Your task to perform on an android device: toggle location history Image 0: 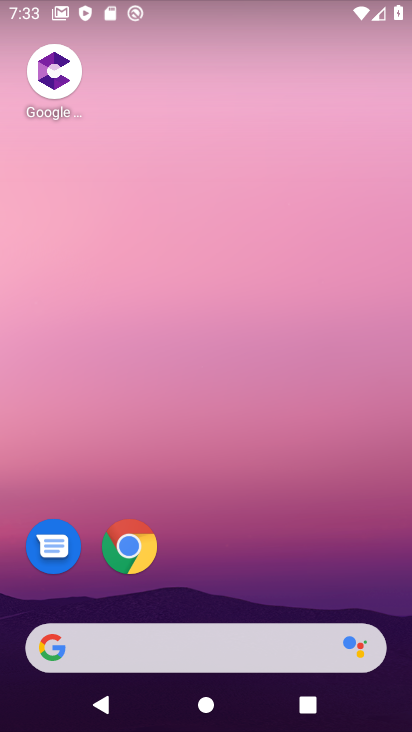
Step 0: drag from (177, 575) to (240, 170)
Your task to perform on an android device: toggle location history Image 1: 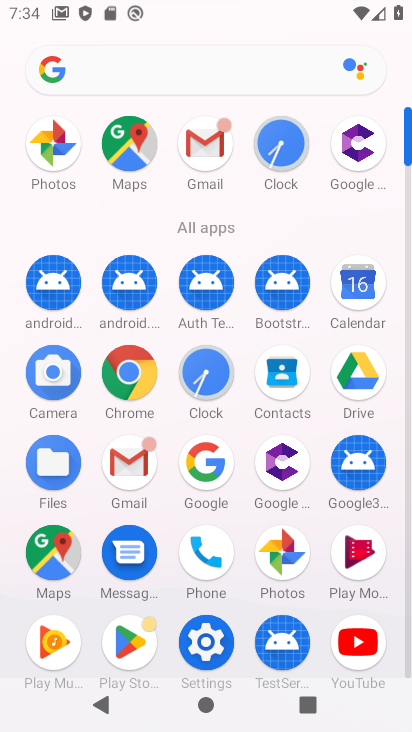
Step 1: click (126, 367)
Your task to perform on an android device: toggle location history Image 2: 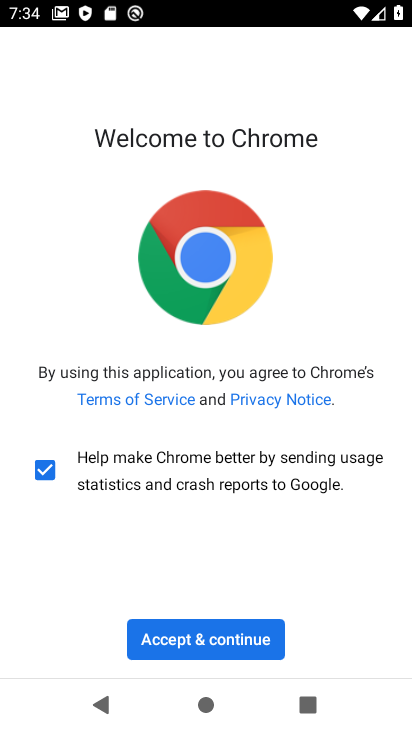
Step 2: press back button
Your task to perform on an android device: toggle location history Image 3: 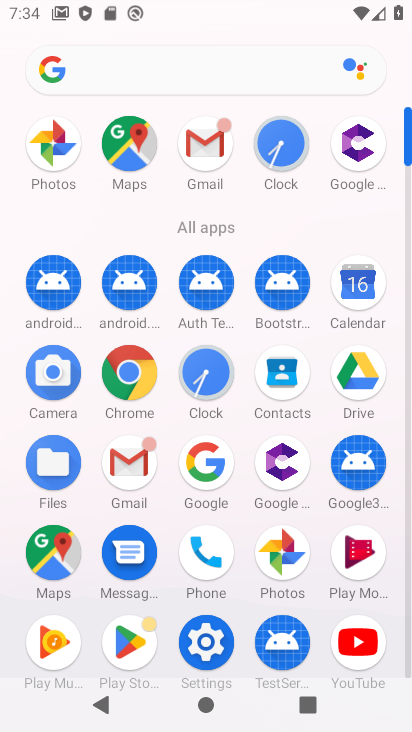
Step 3: press back button
Your task to perform on an android device: toggle location history Image 4: 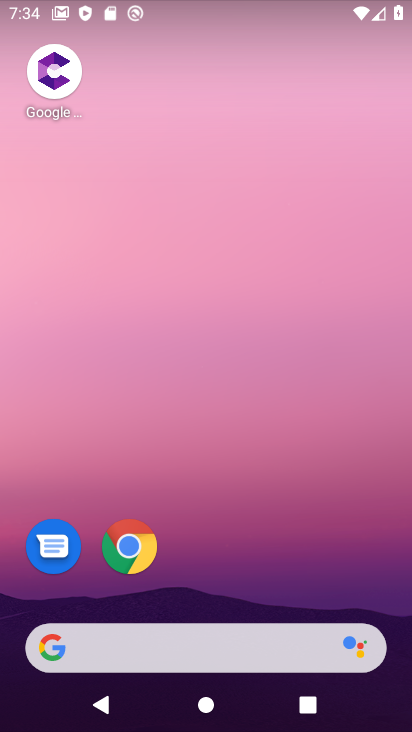
Step 4: drag from (187, 540) to (187, 208)
Your task to perform on an android device: toggle location history Image 5: 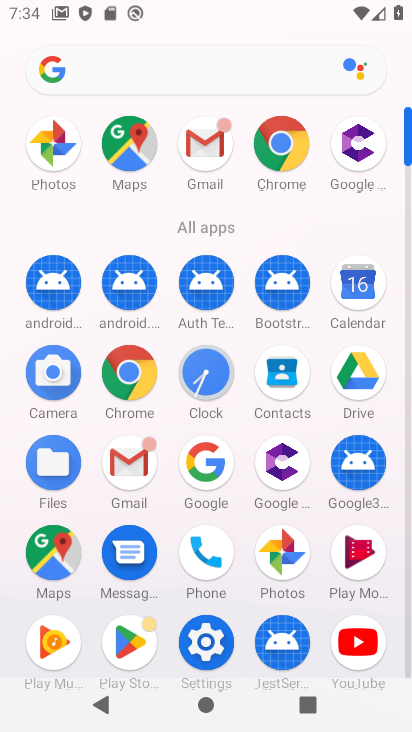
Step 5: click (202, 643)
Your task to perform on an android device: toggle location history Image 6: 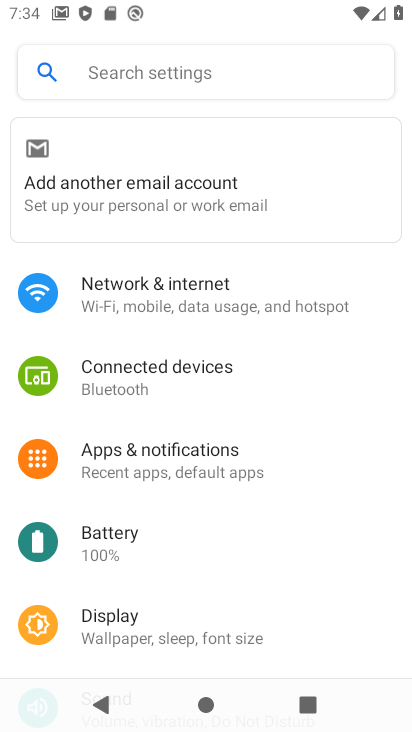
Step 6: drag from (214, 573) to (230, 205)
Your task to perform on an android device: toggle location history Image 7: 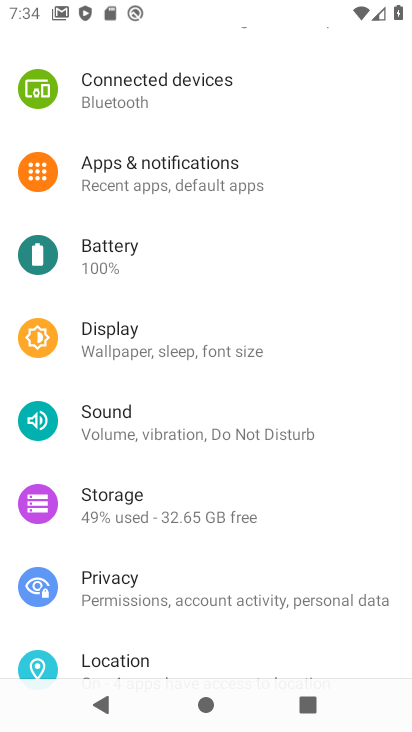
Step 7: drag from (164, 596) to (178, 155)
Your task to perform on an android device: toggle location history Image 8: 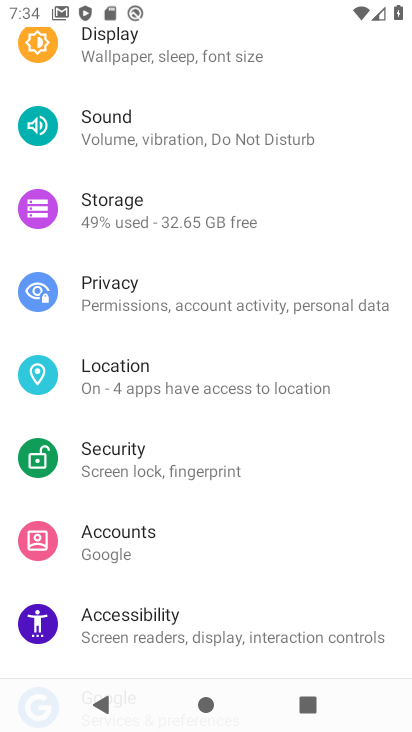
Step 8: click (129, 359)
Your task to perform on an android device: toggle location history Image 9: 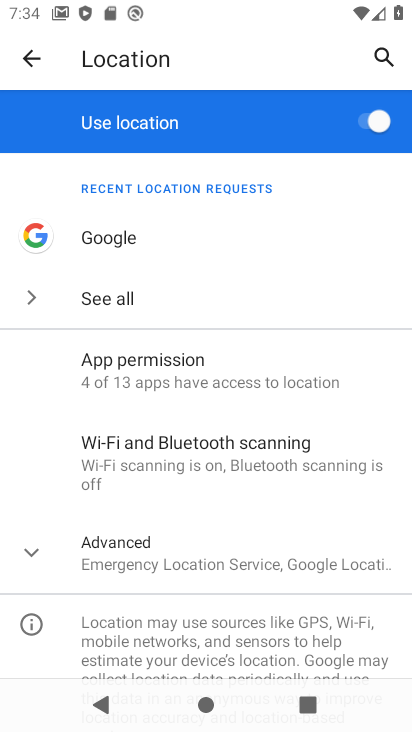
Step 9: drag from (154, 590) to (190, 274)
Your task to perform on an android device: toggle location history Image 10: 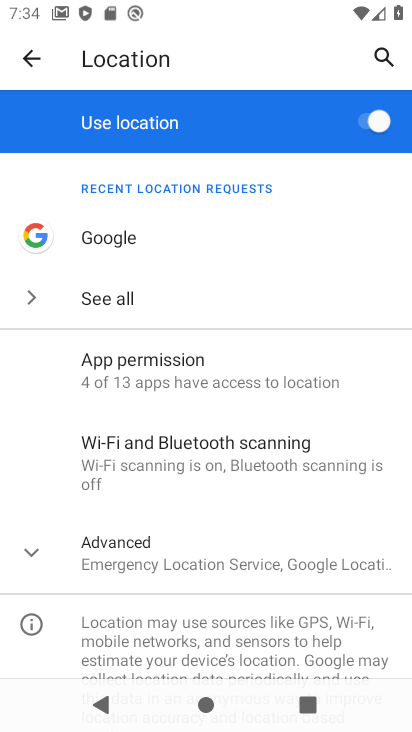
Step 10: click (190, 274)
Your task to perform on an android device: toggle location history Image 11: 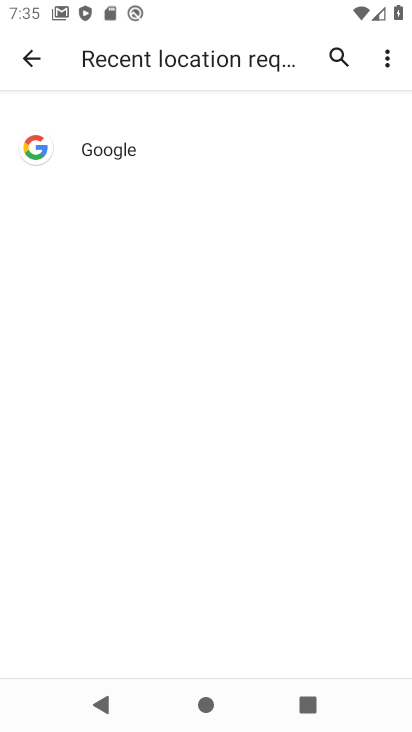
Step 11: click (33, 58)
Your task to perform on an android device: toggle location history Image 12: 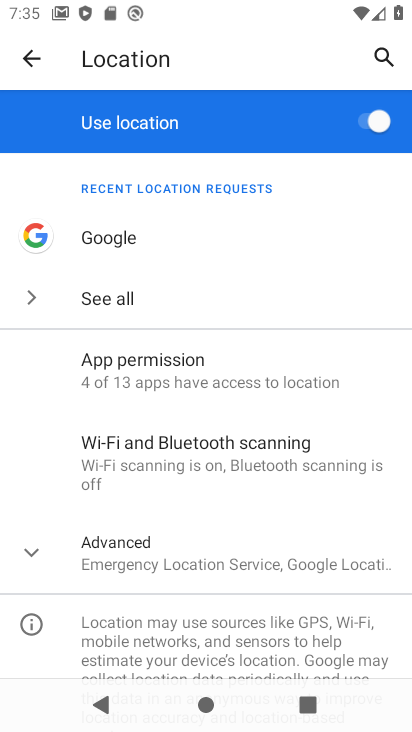
Step 12: click (135, 568)
Your task to perform on an android device: toggle location history Image 13: 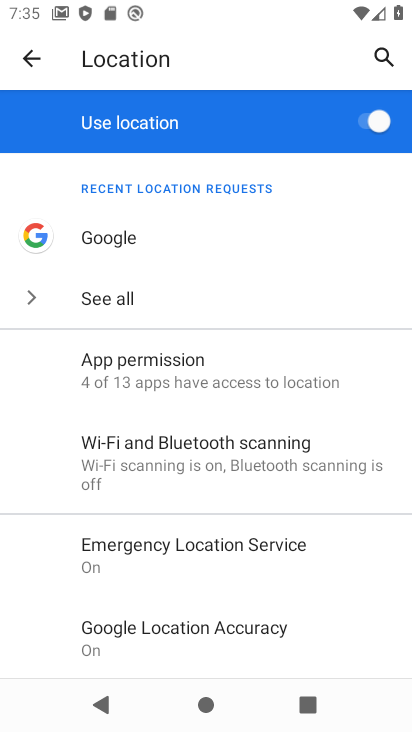
Step 13: drag from (155, 561) to (164, 338)
Your task to perform on an android device: toggle location history Image 14: 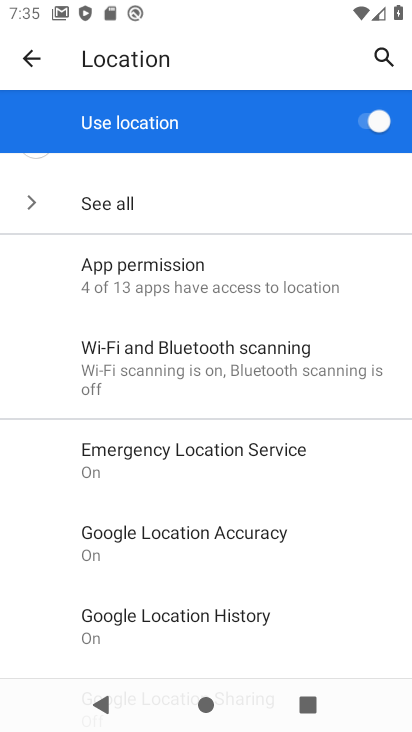
Step 14: click (111, 629)
Your task to perform on an android device: toggle location history Image 15: 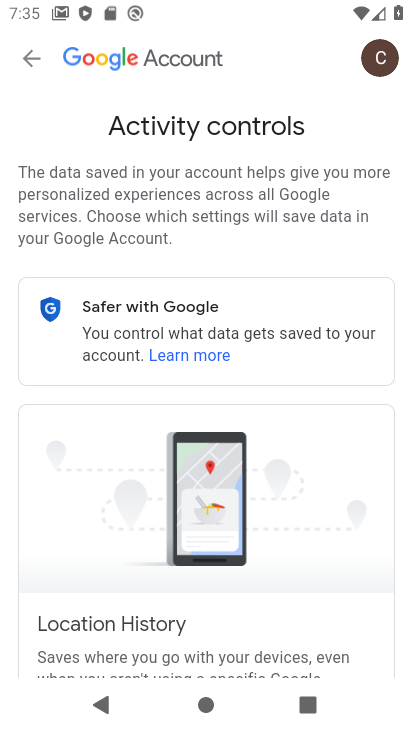
Step 15: drag from (141, 629) to (172, 315)
Your task to perform on an android device: toggle location history Image 16: 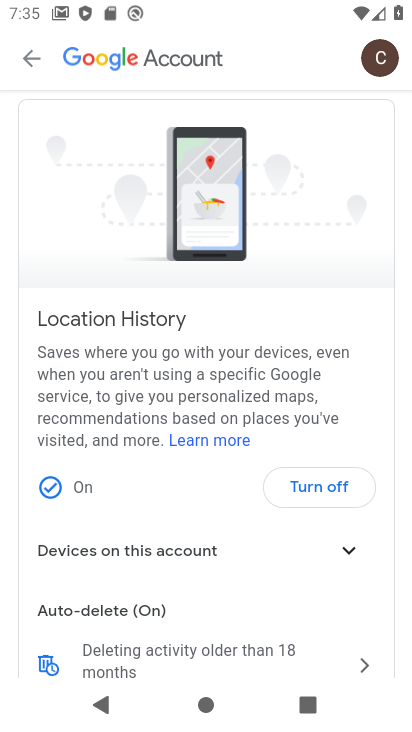
Step 16: drag from (168, 632) to (331, 481)
Your task to perform on an android device: toggle location history Image 17: 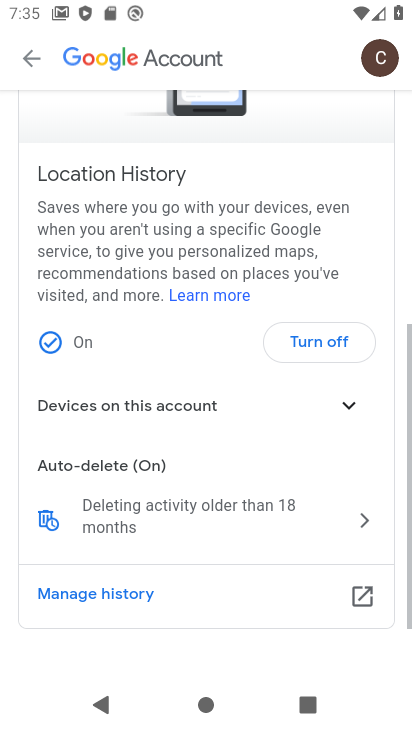
Step 17: click (331, 481)
Your task to perform on an android device: toggle location history Image 18: 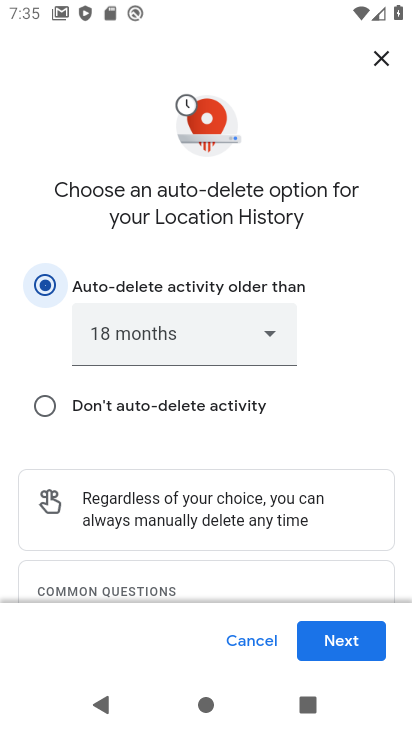
Step 18: click (236, 642)
Your task to perform on an android device: toggle location history Image 19: 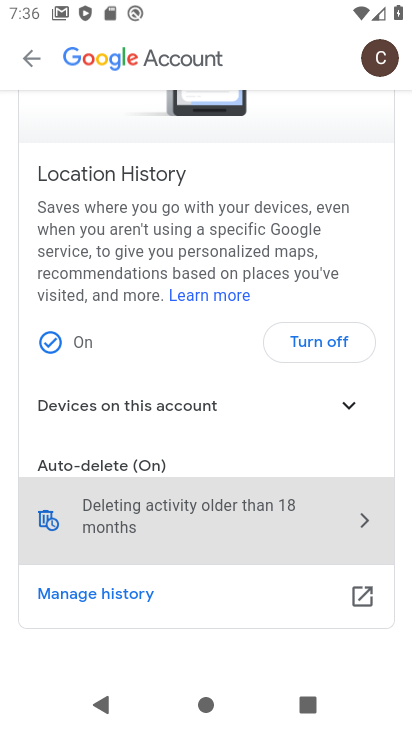
Step 19: click (315, 341)
Your task to perform on an android device: toggle location history Image 20: 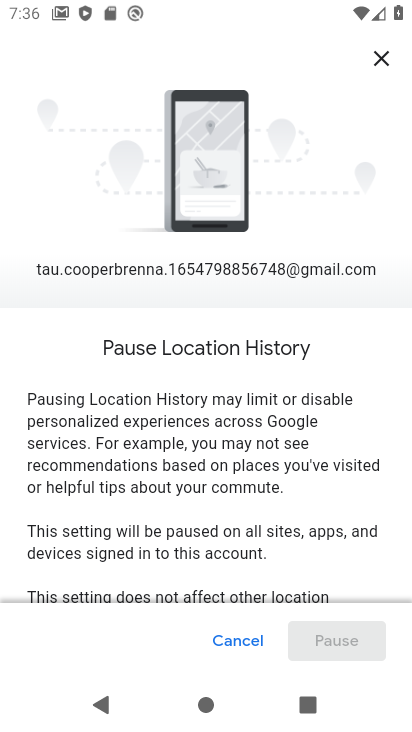
Step 20: drag from (278, 520) to (263, 227)
Your task to perform on an android device: toggle location history Image 21: 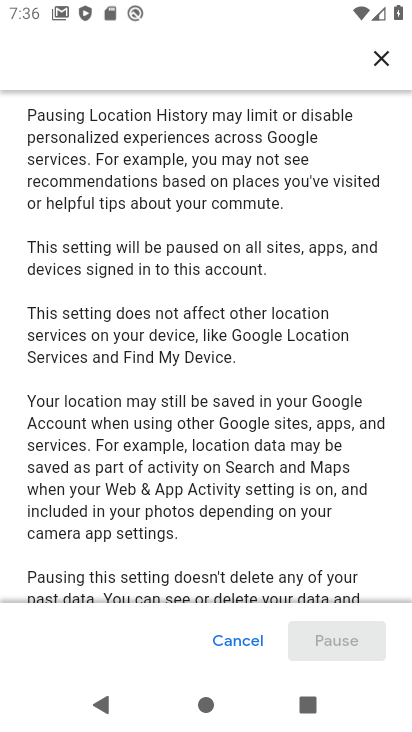
Step 21: drag from (265, 546) to (265, 126)
Your task to perform on an android device: toggle location history Image 22: 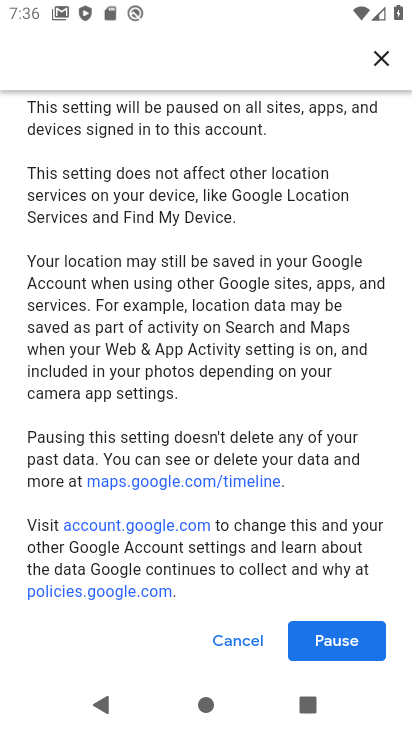
Step 22: drag from (216, 409) to (239, 34)
Your task to perform on an android device: toggle location history Image 23: 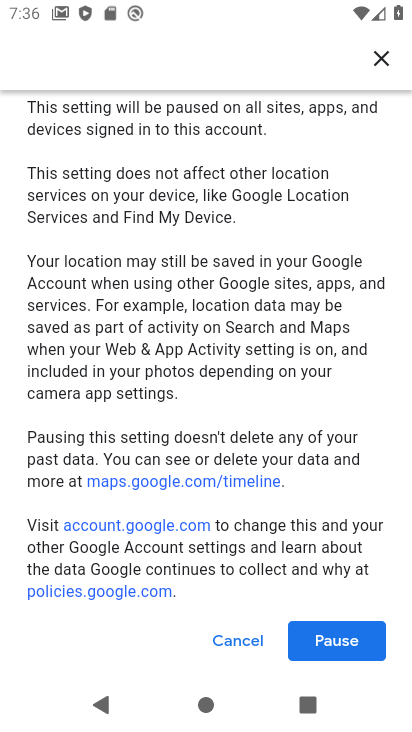
Step 23: click (323, 637)
Your task to perform on an android device: toggle location history Image 24: 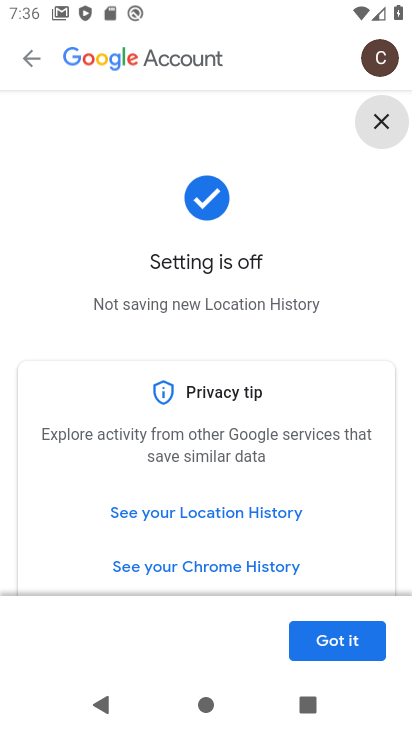
Step 24: click (356, 637)
Your task to perform on an android device: toggle location history Image 25: 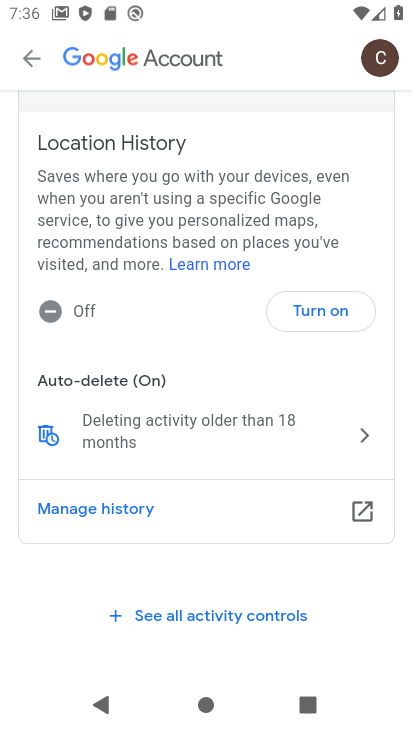
Step 25: task complete